Your task to perform on an android device: turn off translation in the chrome app Image 0: 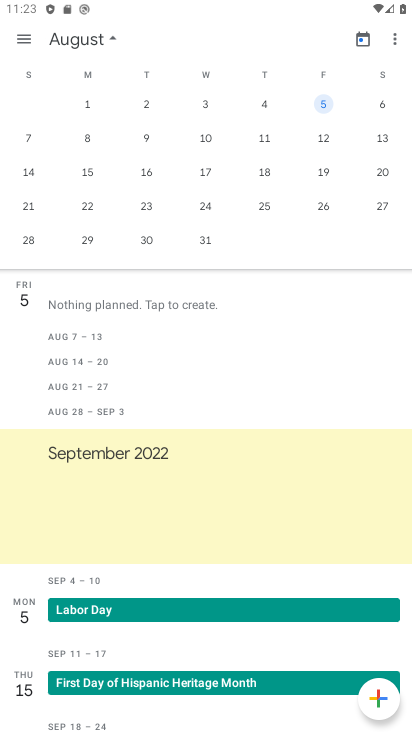
Step 0: press home button
Your task to perform on an android device: turn off translation in the chrome app Image 1: 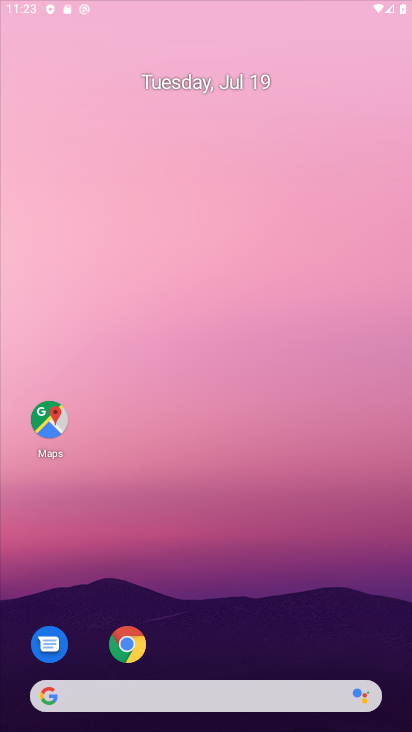
Step 1: drag from (203, 645) to (215, 140)
Your task to perform on an android device: turn off translation in the chrome app Image 2: 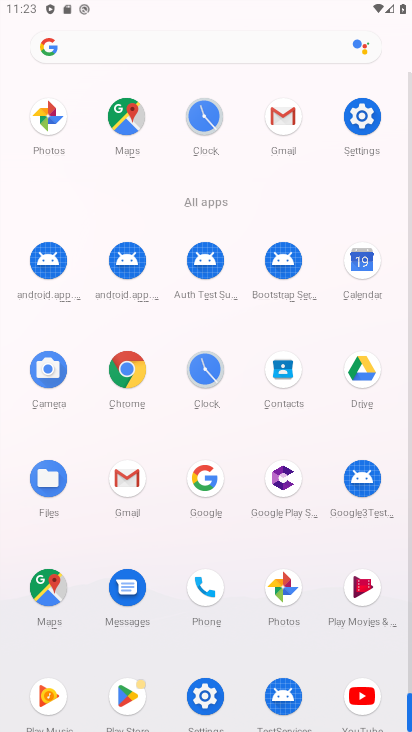
Step 2: click (121, 365)
Your task to perform on an android device: turn off translation in the chrome app Image 3: 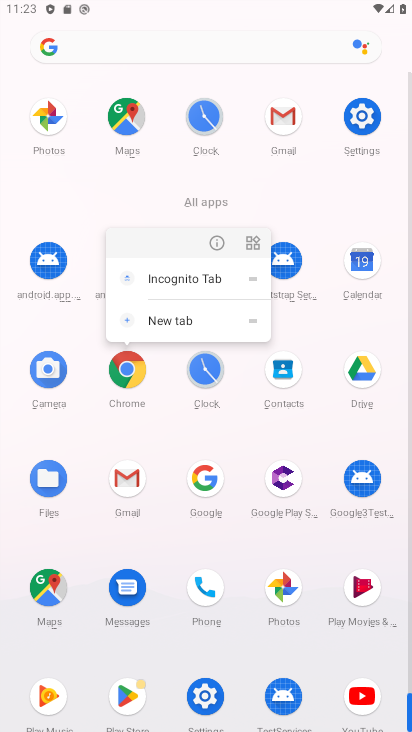
Step 3: click (220, 244)
Your task to perform on an android device: turn off translation in the chrome app Image 4: 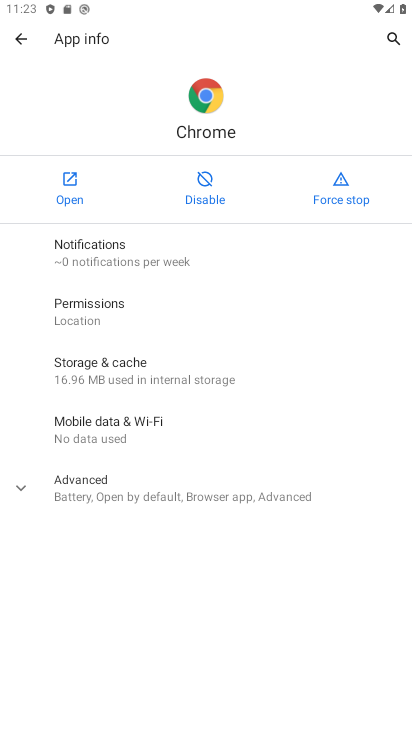
Step 4: click (78, 173)
Your task to perform on an android device: turn off translation in the chrome app Image 5: 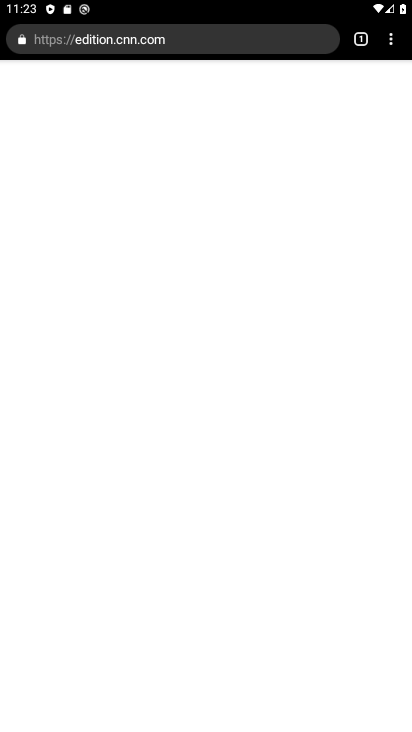
Step 5: drag from (388, 40) to (278, 475)
Your task to perform on an android device: turn off translation in the chrome app Image 6: 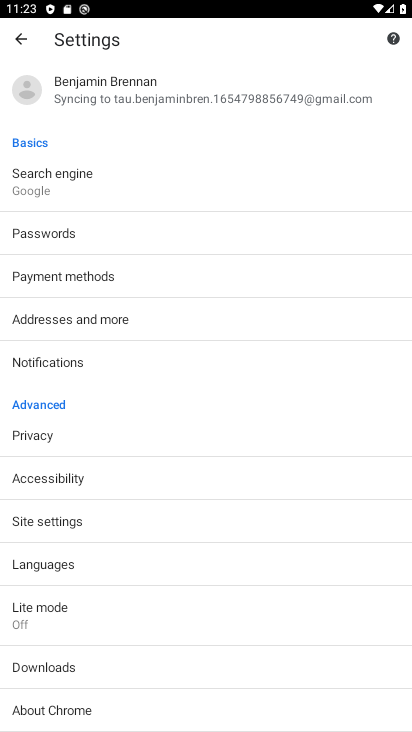
Step 6: click (93, 556)
Your task to perform on an android device: turn off translation in the chrome app Image 7: 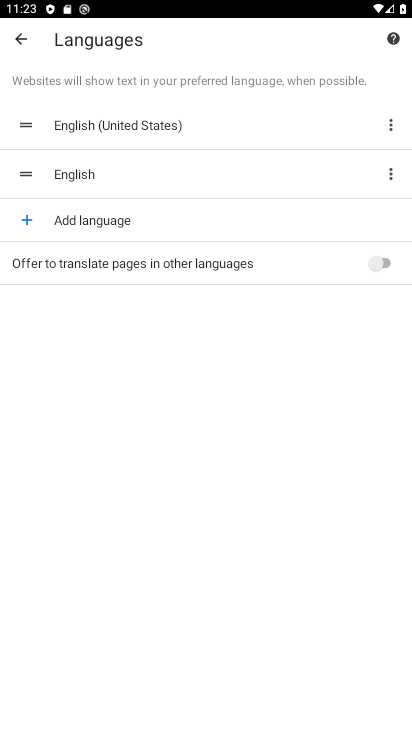
Step 7: task complete